Your task to perform on an android device: Go to Yahoo.com Image 0: 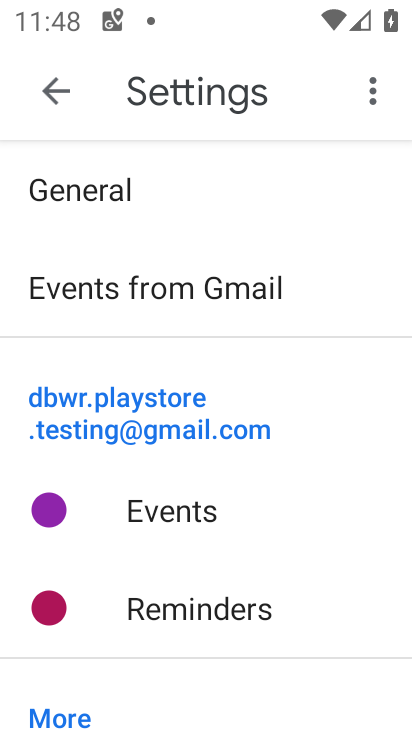
Step 0: press home button
Your task to perform on an android device: Go to Yahoo.com Image 1: 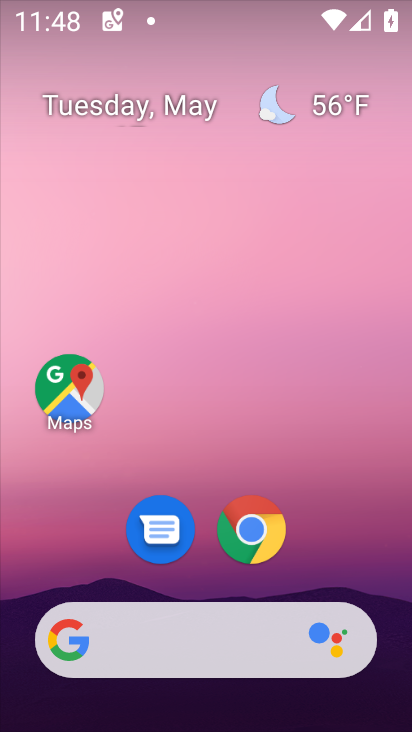
Step 1: click (265, 531)
Your task to perform on an android device: Go to Yahoo.com Image 2: 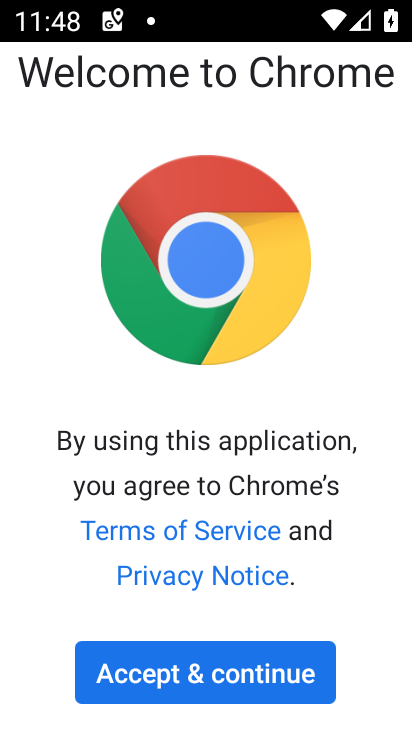
Step 2: click (269, 676)
Your task to perform on an android device: Go to Yahoo.com Image 3: 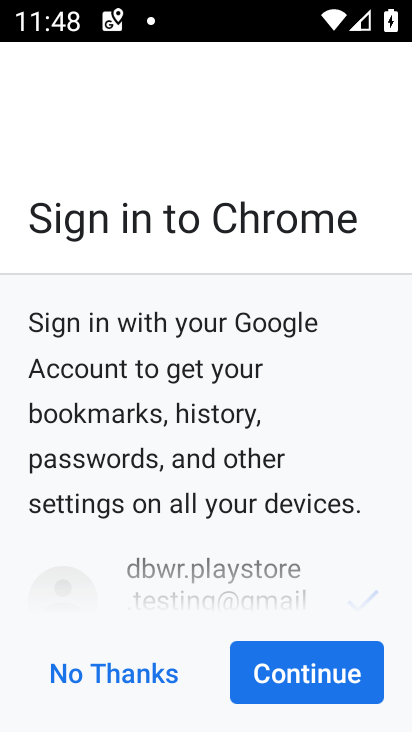
Step 3: click (286, 667)
Your task to perform on an android device: Go to Yahoo.com Image 4: 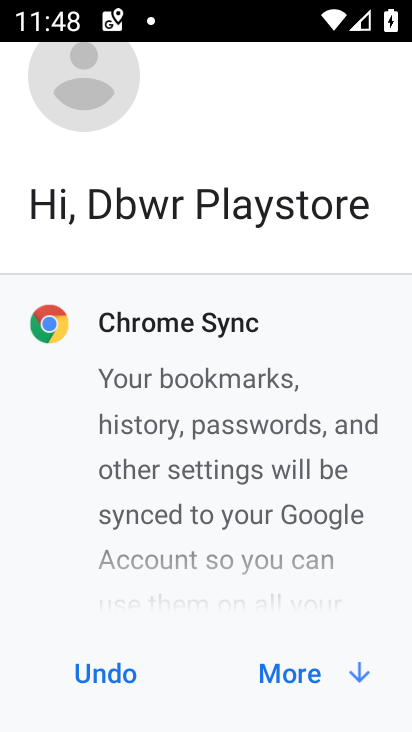
Step 4: click (290, 667)
Your task to perform on an android device: Go to Yahoo.com Image 5: 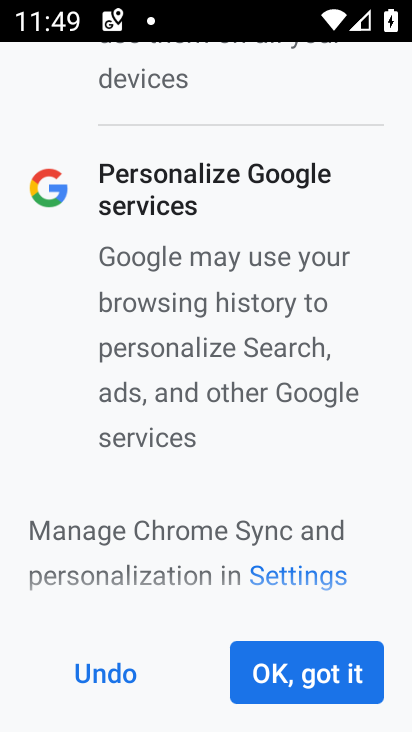
Step 5: click (322, 678)
Your task to perform on an android device: Go to Yahoo.com Image 6: 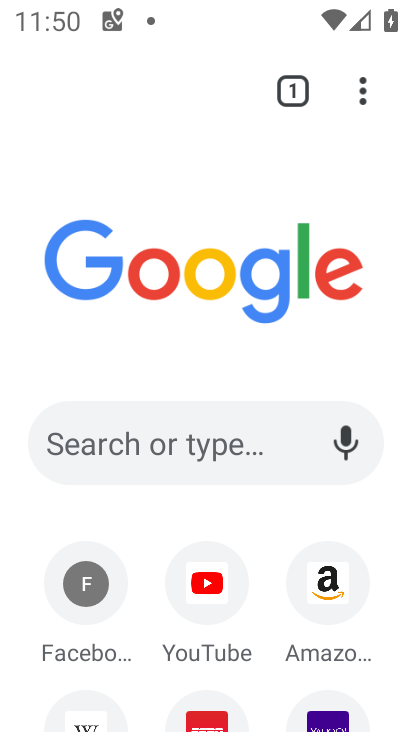
Step 6: click (254, 459)
Your task to perform on an android device: Go to Yahoo.com Image 7: 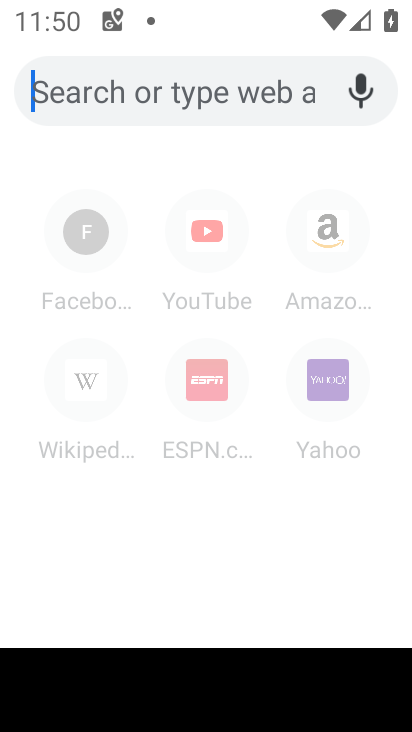
Step 7: type "Yahoo.com"
Your task to perform on an android device: Go to Yahoo.com Image 8: 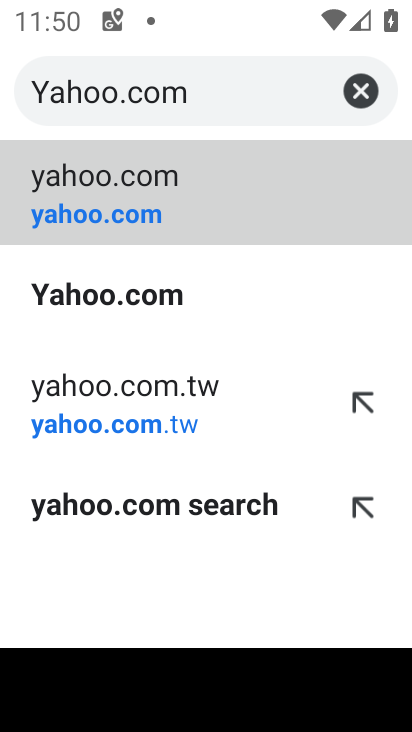
Step 8: click (109, 281)
Your task to perform on an android device: Go to Yahoo.com Image 9: 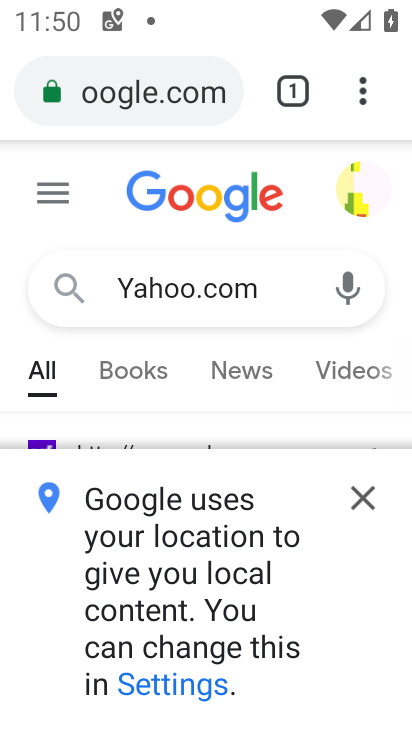
Step 9: task complete